Your task to perform on an android device: Search for sushi restaurants on Maps Image 0: 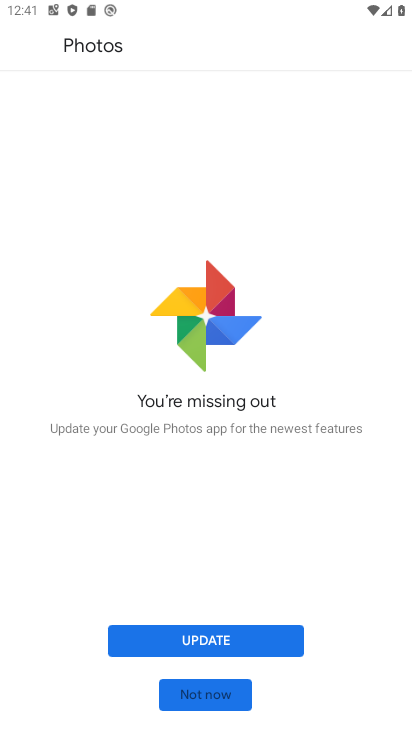
Step 0: press back button
Your task to perform on an android device: Search for sushi restaurants on Maps Image 1: 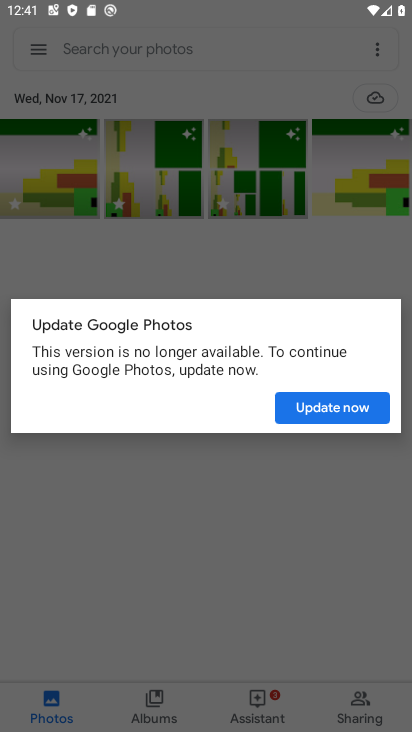
Step 1: press home button
Your task to perform on an android device: Search for sushi restaurants on Maps Image 2: 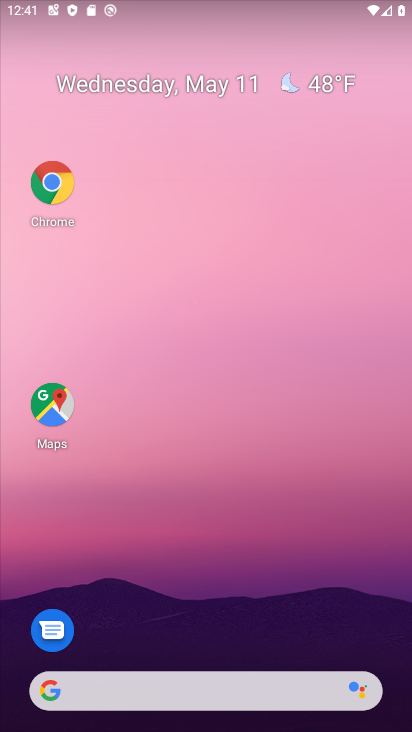
Step 2: click (44, 409)
Your task to perform on an android device: Search for sushi restaurants on Maps Image 3: 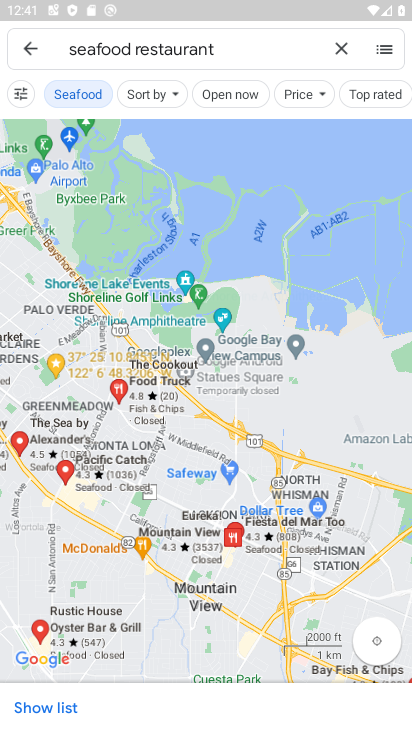
Step 3: click (338, 46)
Your task to perform on an android device: Search for sushi restaurants on Maps Image 4: 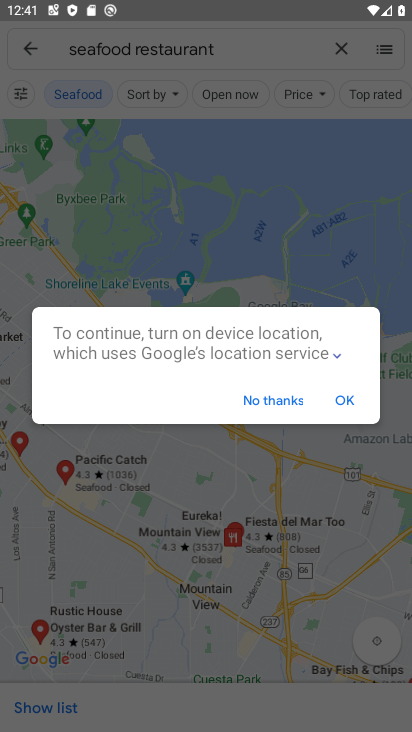
Step 4: click (349, 408)
Your task to perform on an android device: Search for sushi restaurants on Maps Image 5: 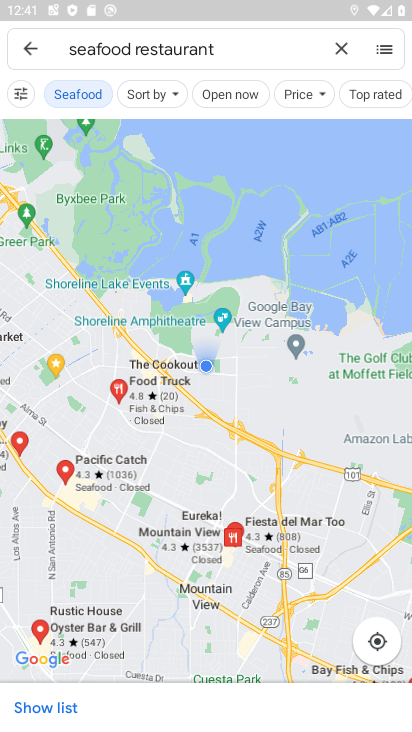
Step 5: click (338, 48)
Your task to perform on an android device: Search for sushi restaurants on Maps Image 6: 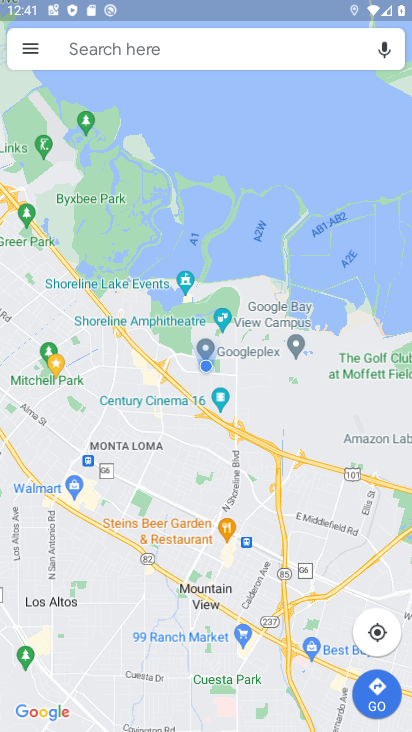
Step 6: click (256, 57)
Your task to perform on an android device: Search for sushi restaurants on Maps Image 7: 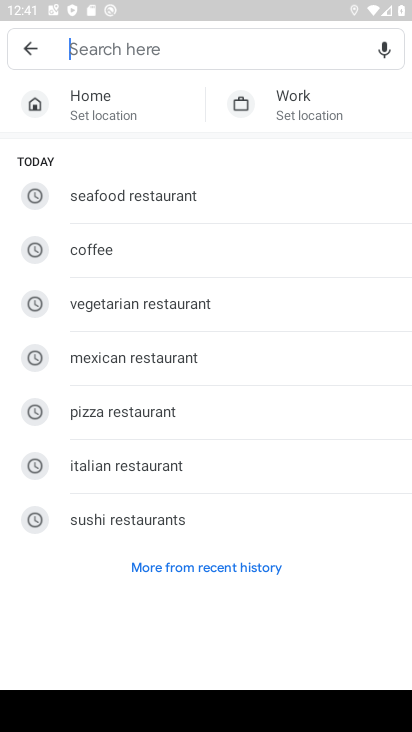
Step 7: click (118, 511)
Your task to perform on an android device: Search for sushi restaurants on Maps Image 8: 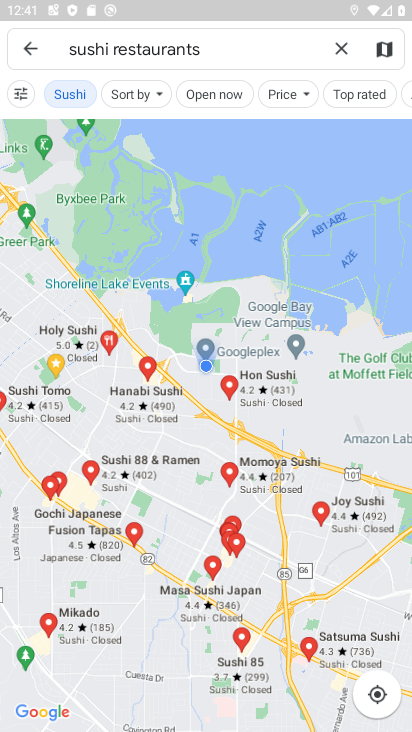
Step 8: task complete